Your task to perform on an android device: check battery use Image 0: 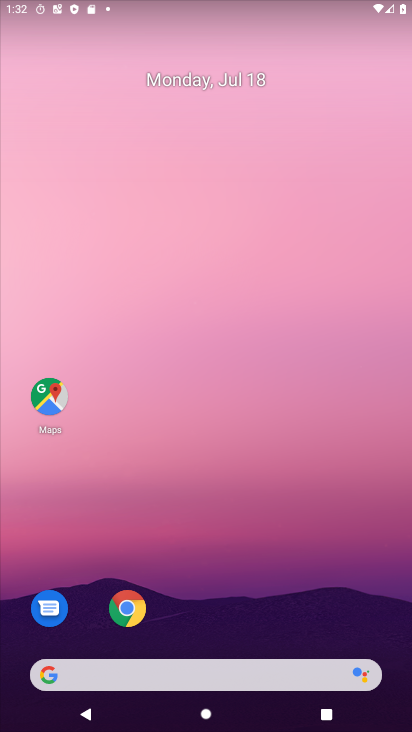
Step 0: drag from (238, 702) to (293, 83)
Your task to perform on an android device: check battery use Image 1: 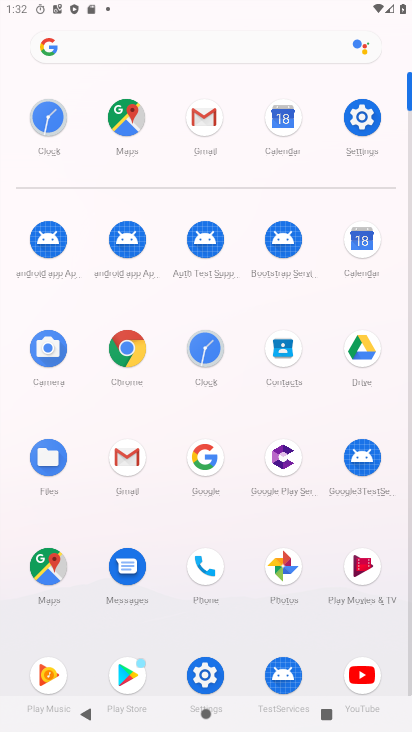
Step 1: click (359, 114)
Your task to perform on an android device: check battery use Image 2: 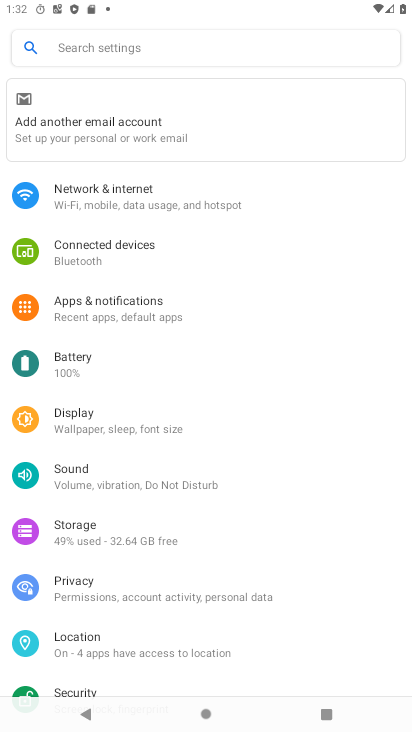
Step 2: click (69, 362)
Your task to perform on an android device: check battery use Image 3: 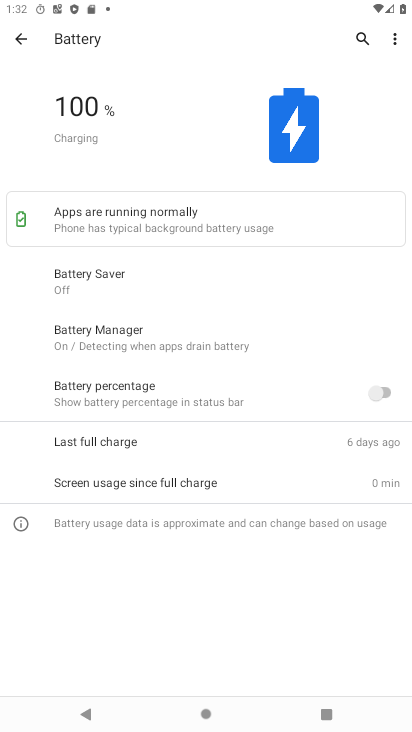
Step 3: click (393, 43)
Your task to perform on an android device: check battery use Image 4: 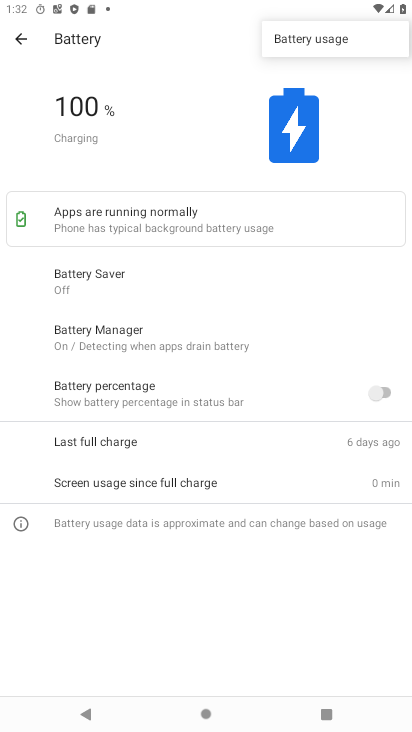
Step 4: click (306, 36)
Your task to perform on an android device: check battery use Image 5: 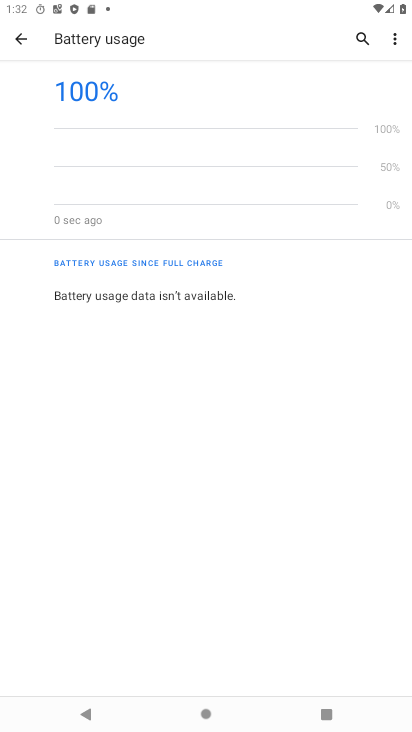
Step 5: task complete